Your task to perform on an android device: add a label to a message in the gmail app Image 0: 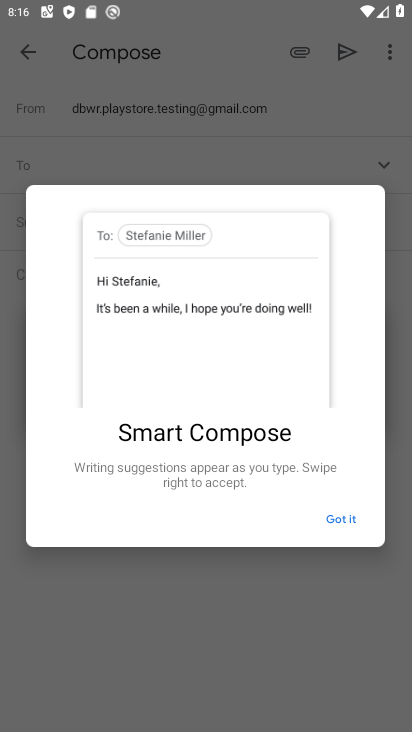
Step 0: press home button
Your task to perform on an android device: add a label to a message in the gmail app Image 1: 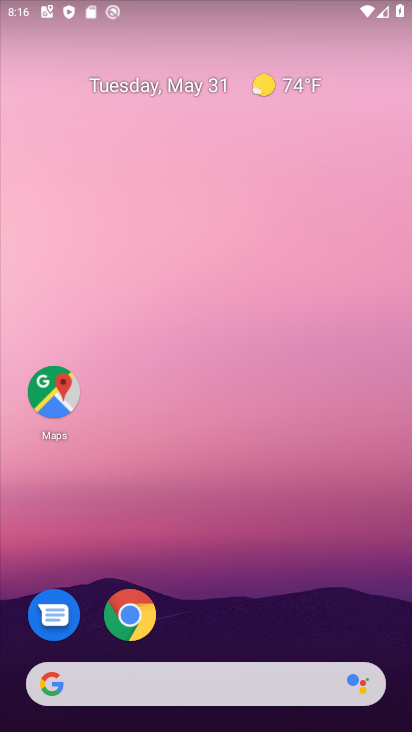
Step 1: drag from (149, 691) to (302, 145)
Your task to perform on an android device: add a label to a message in the gmail app Image 2: 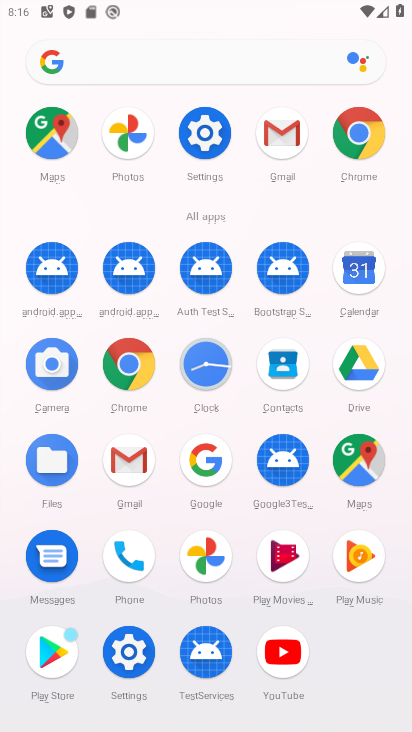
Step 2: click (127, 467)
Your task to perform on an android device: add a label to a message in the gmail app Image 3: 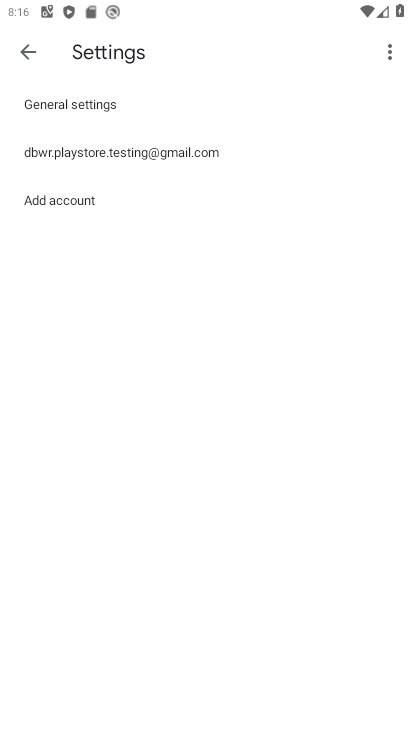
Step 3: click (34, 52)
Your task to perform on an android device: add a label to a message in the gmail app Image 4: 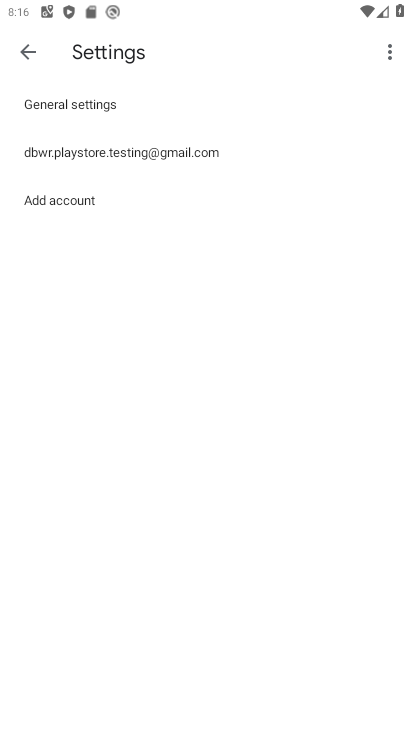
Step 4: click (28, 50)
Your task to perform on an android device: add a label to a message in the gmail app Image 5: 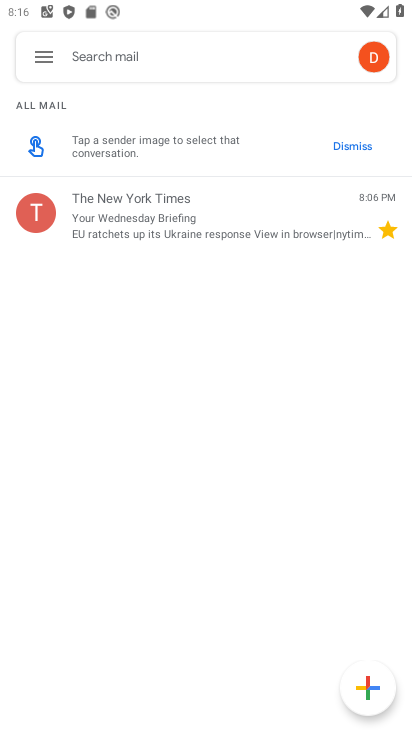
Step 5: click (146, 220)
Your task to perform on an android device: add a label to a message in the gmail app Image 6: 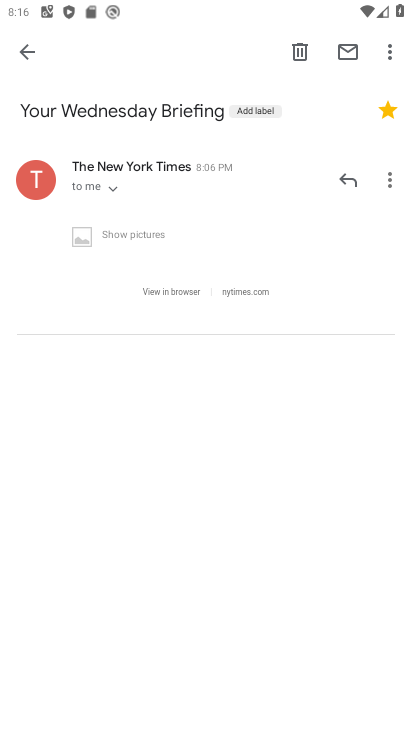
Step 6: click (255, 112)
Your task to perform on an android device: add a label to a message in the gmail app Image 7: 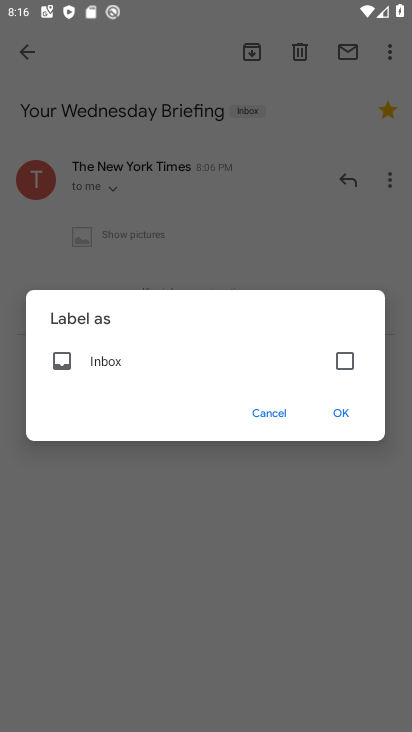
Step 7: click (349, 357)
Your task to perform on an android device: add a label to a message in the gmail app Image 8: 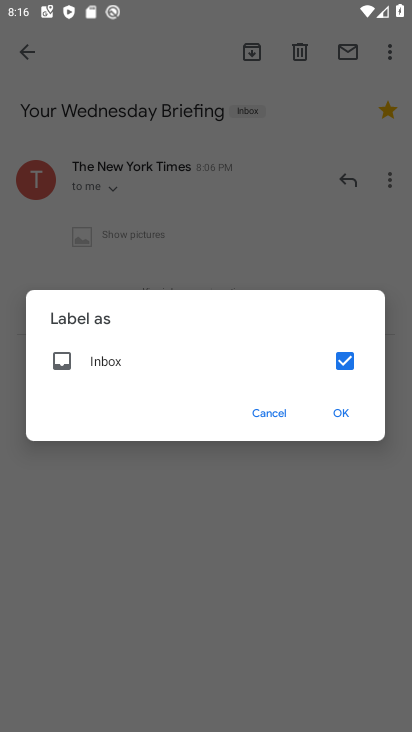
Step 8: click (341, 411)
Your task to perform on an android device: add a label to a message in the gmail app Image 9: 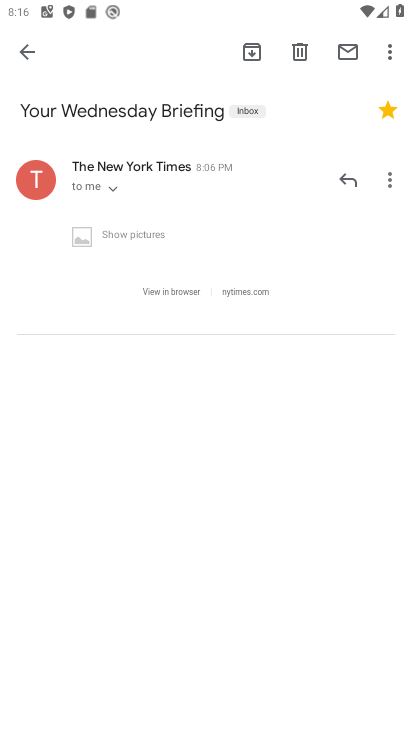
Step 9: task complete